Your task to perform on an android device: Open the map Image 0: 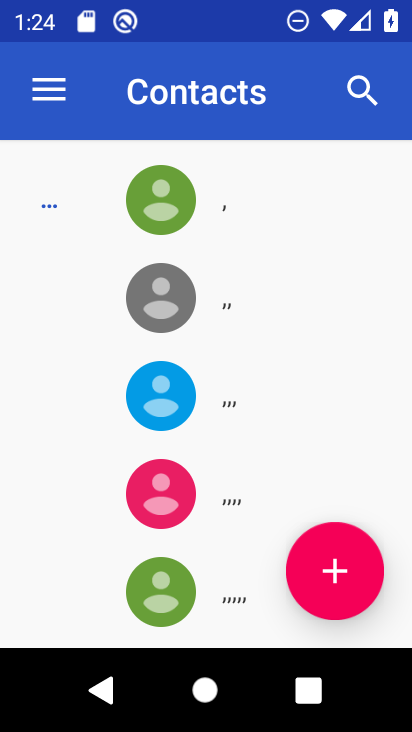
Step 0: press home button
Your task to perform on an android device: Open the map Image 1: 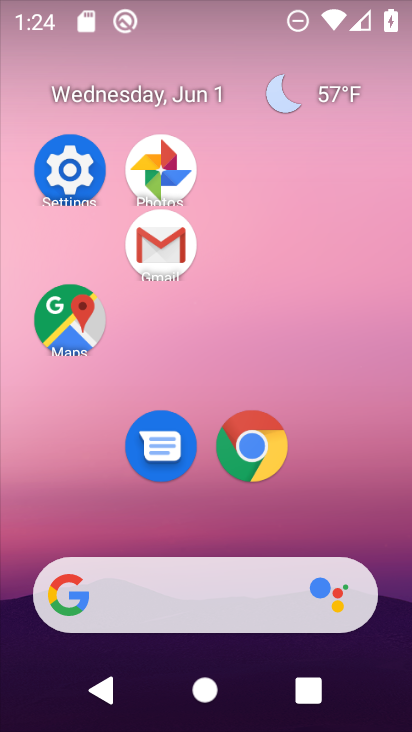
Step 1: click (101, 327)
Your task to perform on an android device: Open the map Image 2: 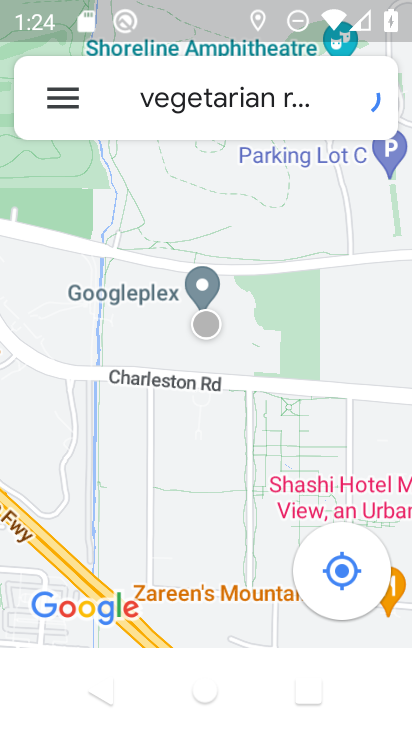
Step 2: task complete